Your task to perform on an android device: allow cookies in the chrome app Image 0: 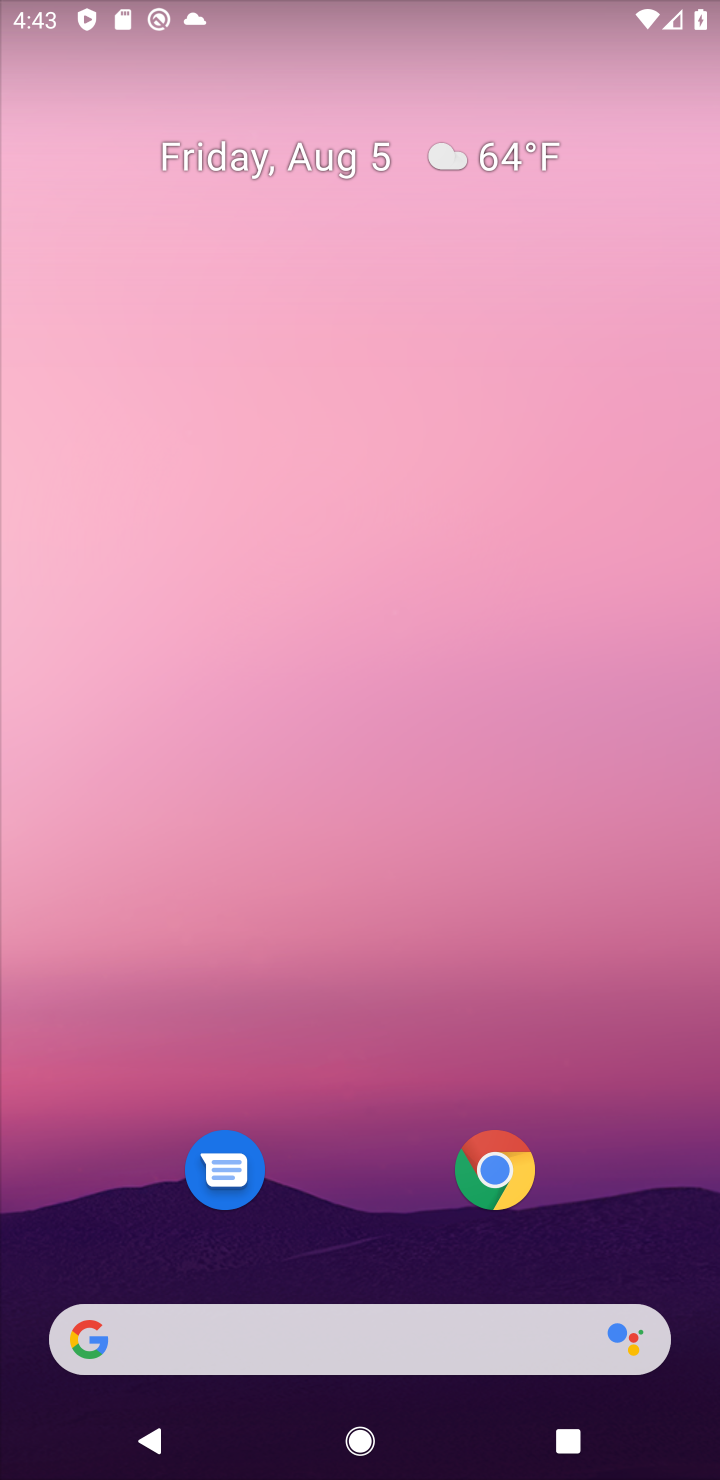
Step 0: drag from (429, 770) to (483, 329)
Your task to perform on an android device: allow cookies in the chrome app Image 1: 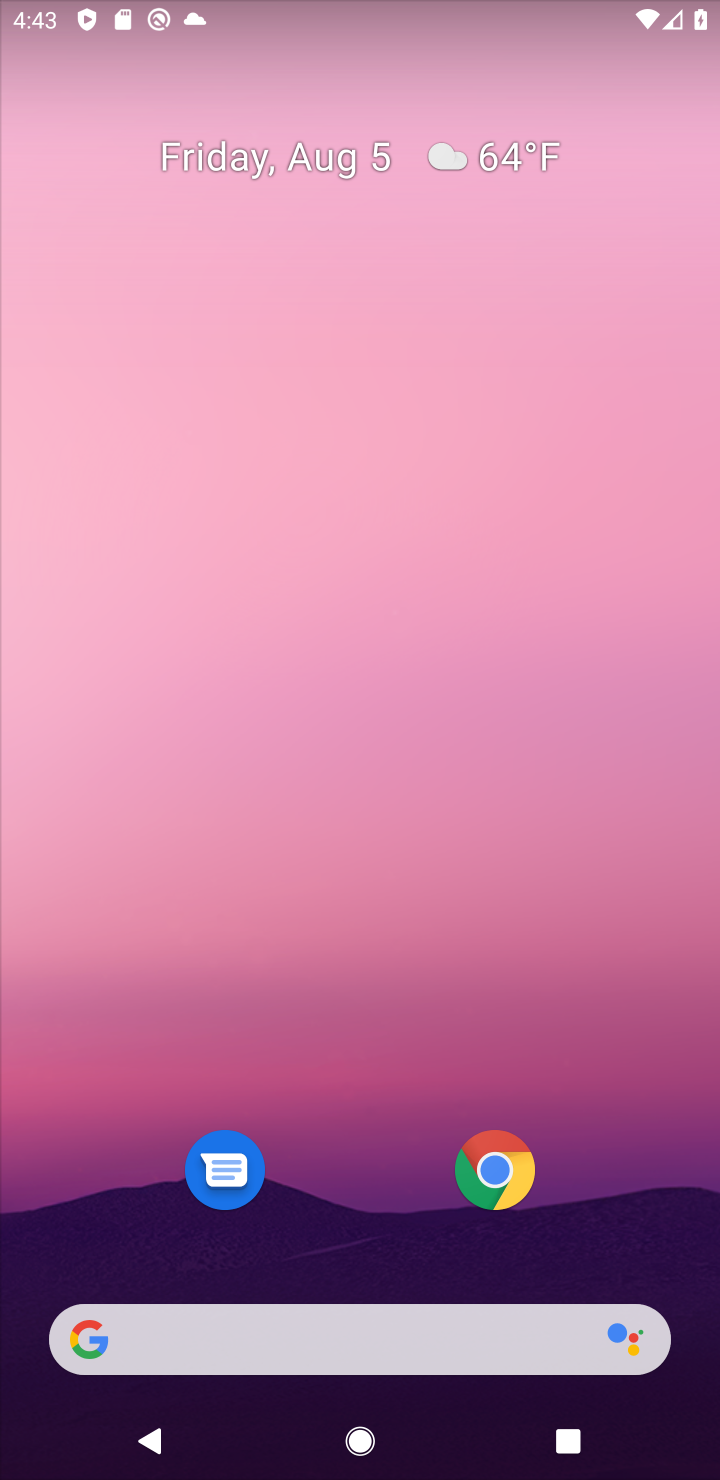
Step 1: drag from (433, 1268) to (439, 331)
Your task to perform on an android device: allow cookies in the chrome app Image 2: 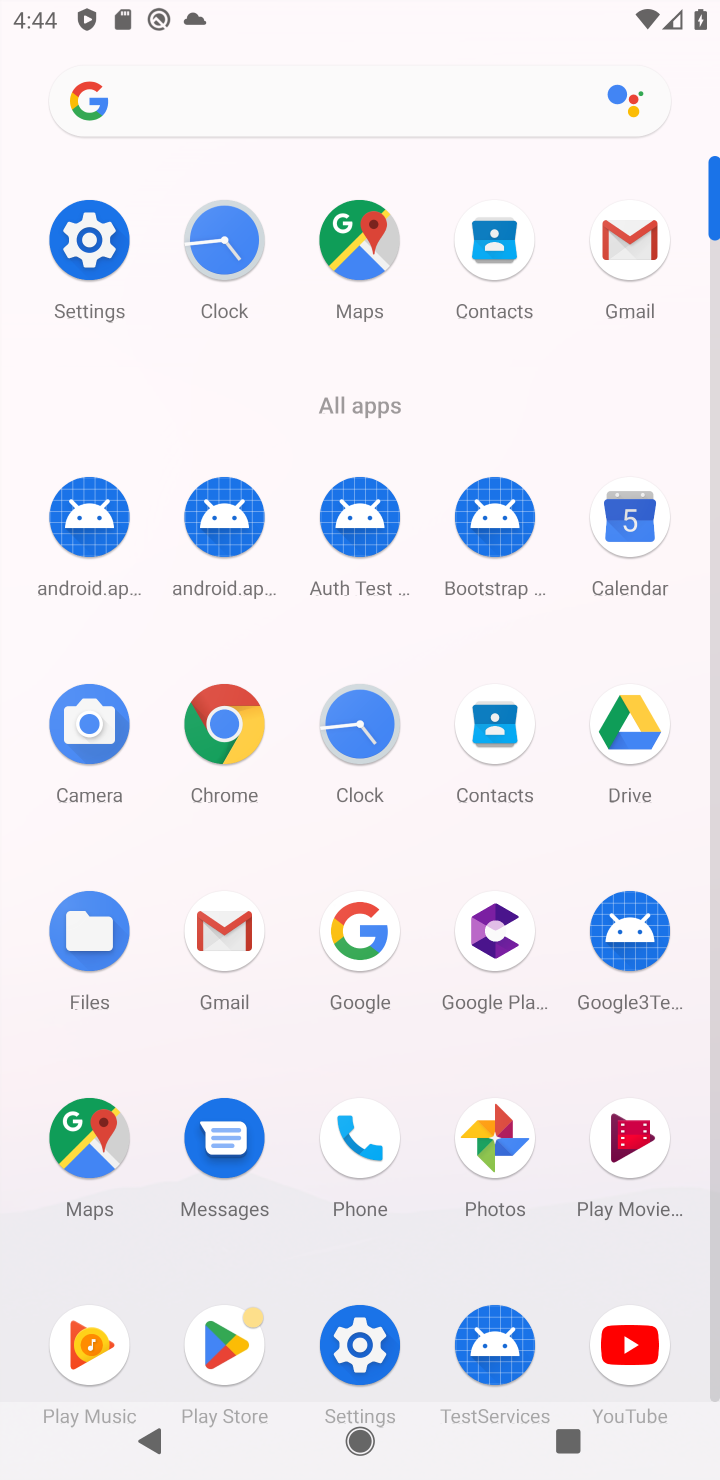
Step 2: click (207, 734)
Your task to perform on an android device: allow cookies in the chrome app Image 3: 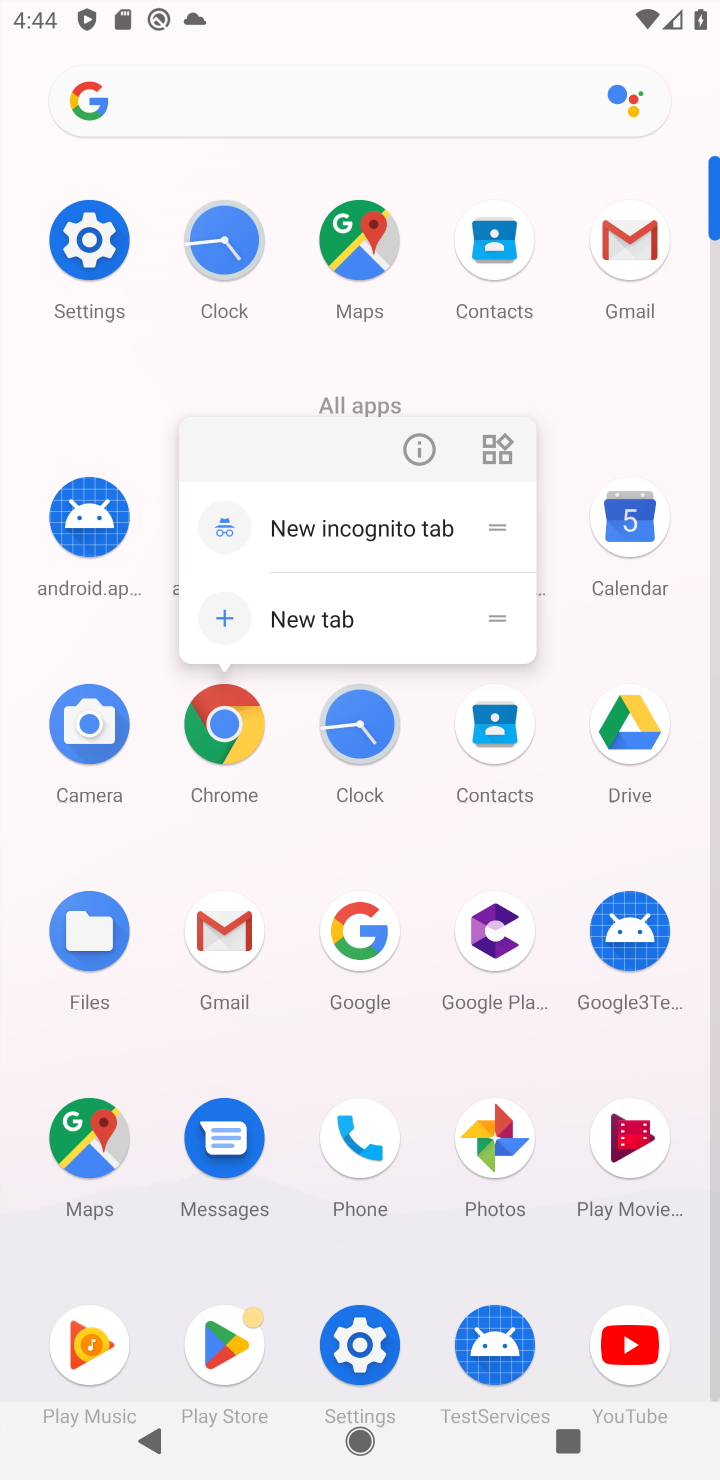
Step 3: click (207, 734)
Your task to perform on an android device: allow cookies in the chrome app Image 4: 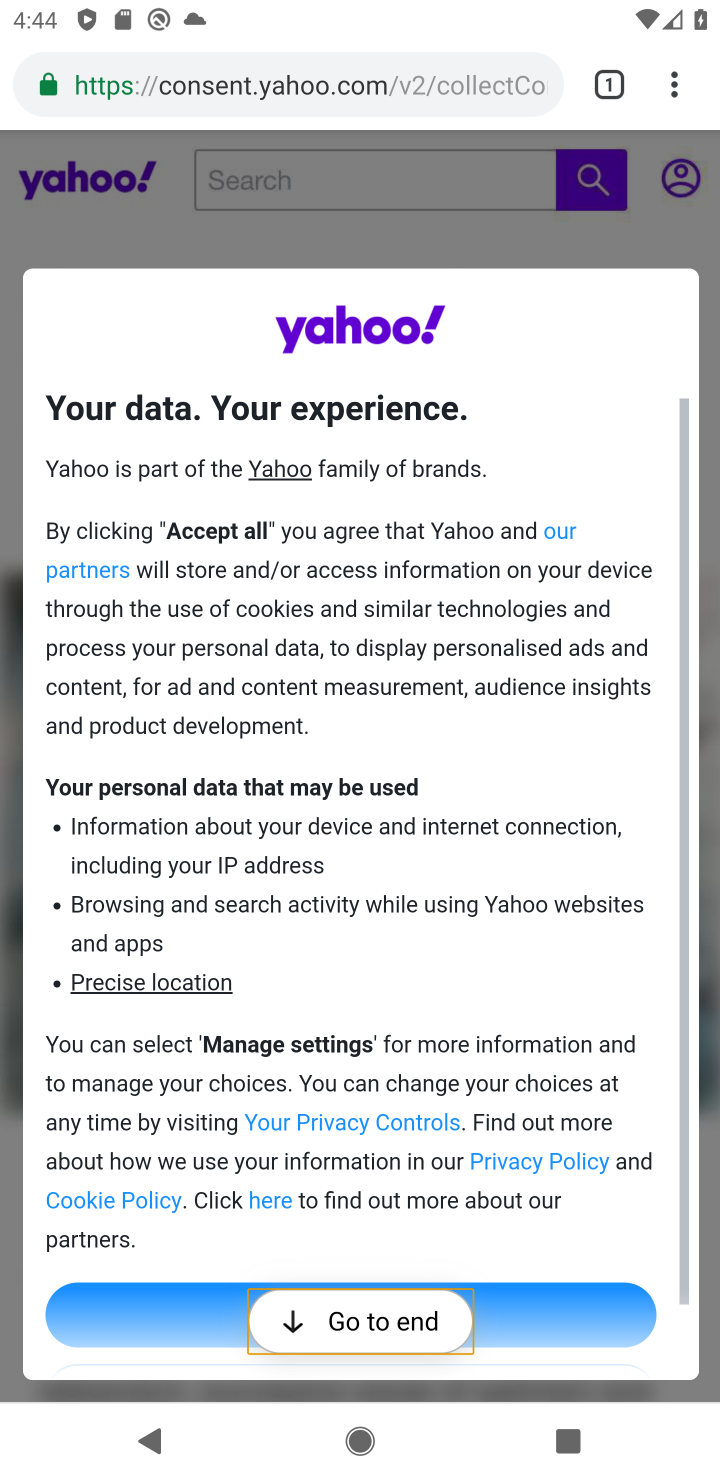
Step 4: drag from (665, 86) to (406, 1013)
Your task to perform on an android device: allow cookies in the chrome app Image 5: 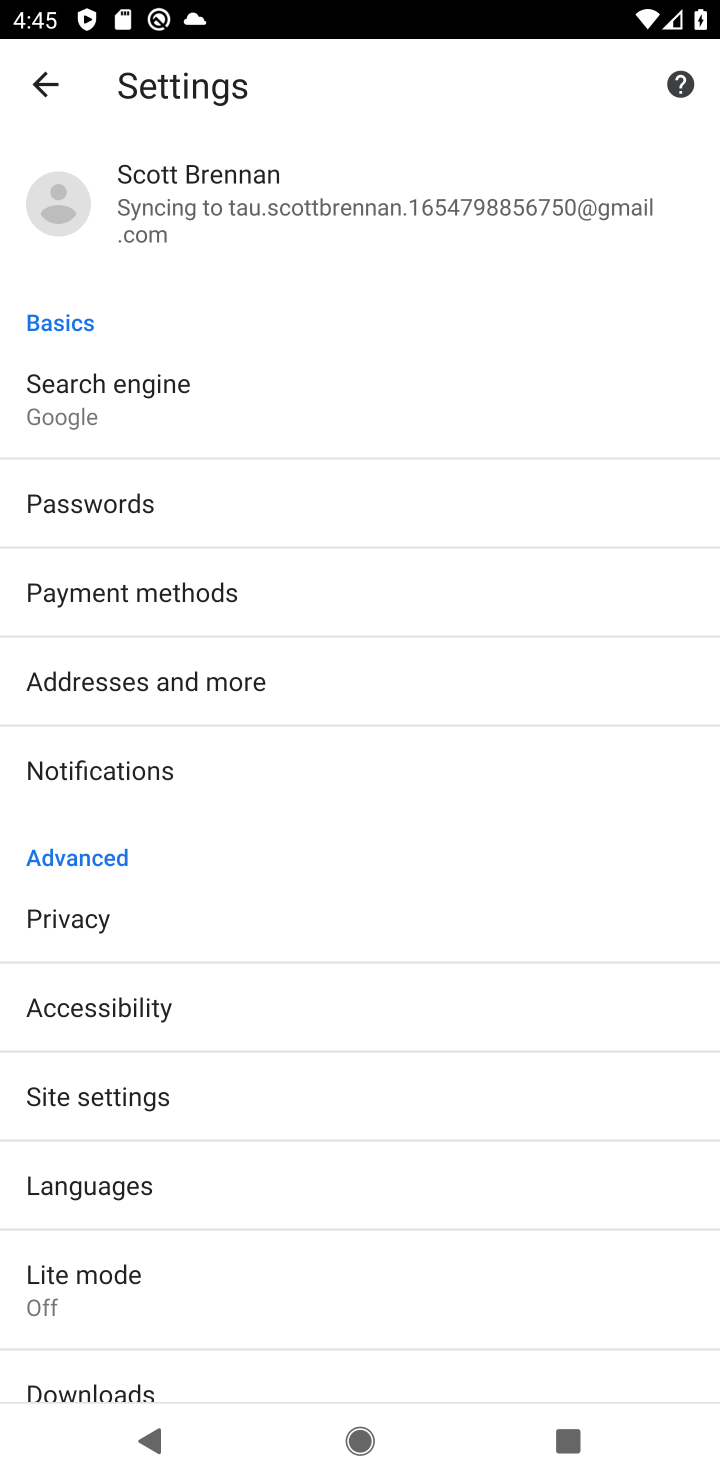
Step 5: click (119, 1091)
Your task to perform on an android device: allow cookies in the chrome app Image 6: 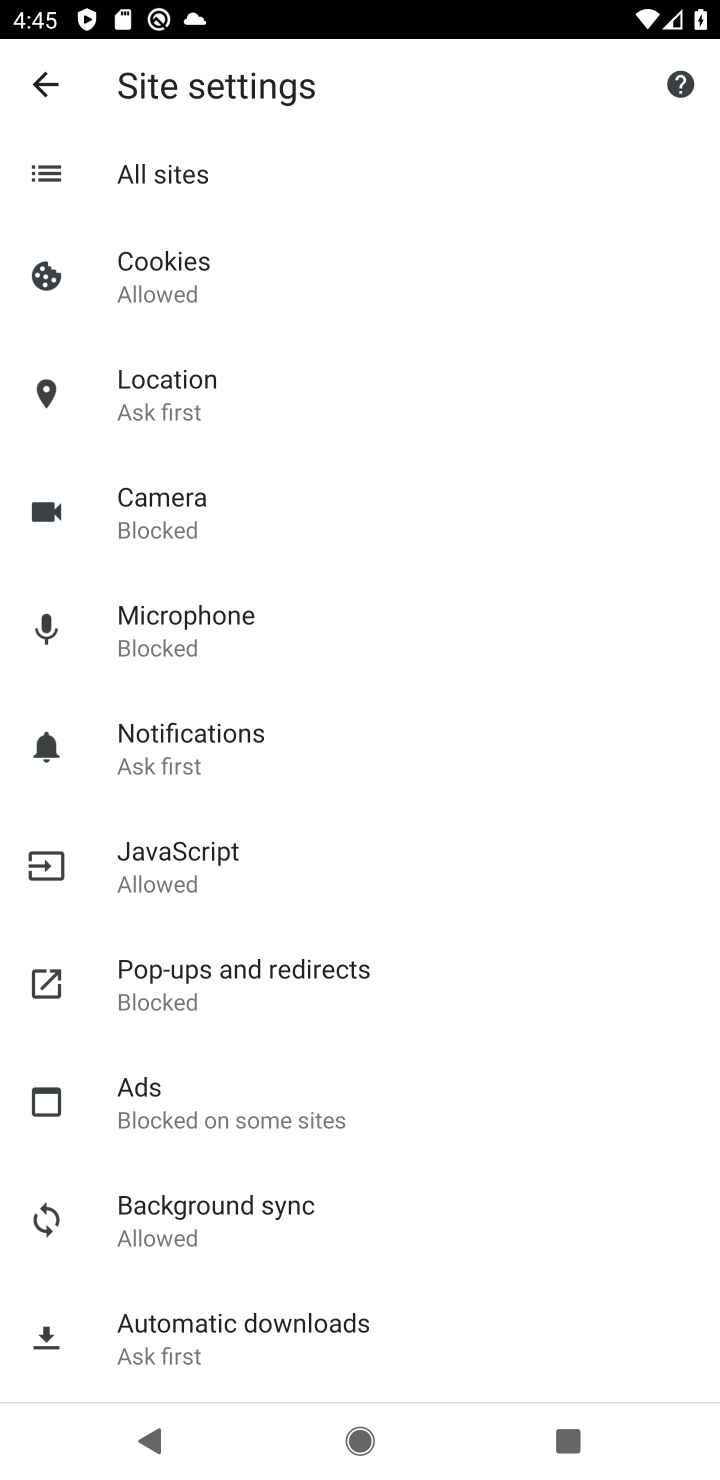
Step 6: click (153, 280)
Your task to perform on an android device: allow cookies in the chrome app Image 7: 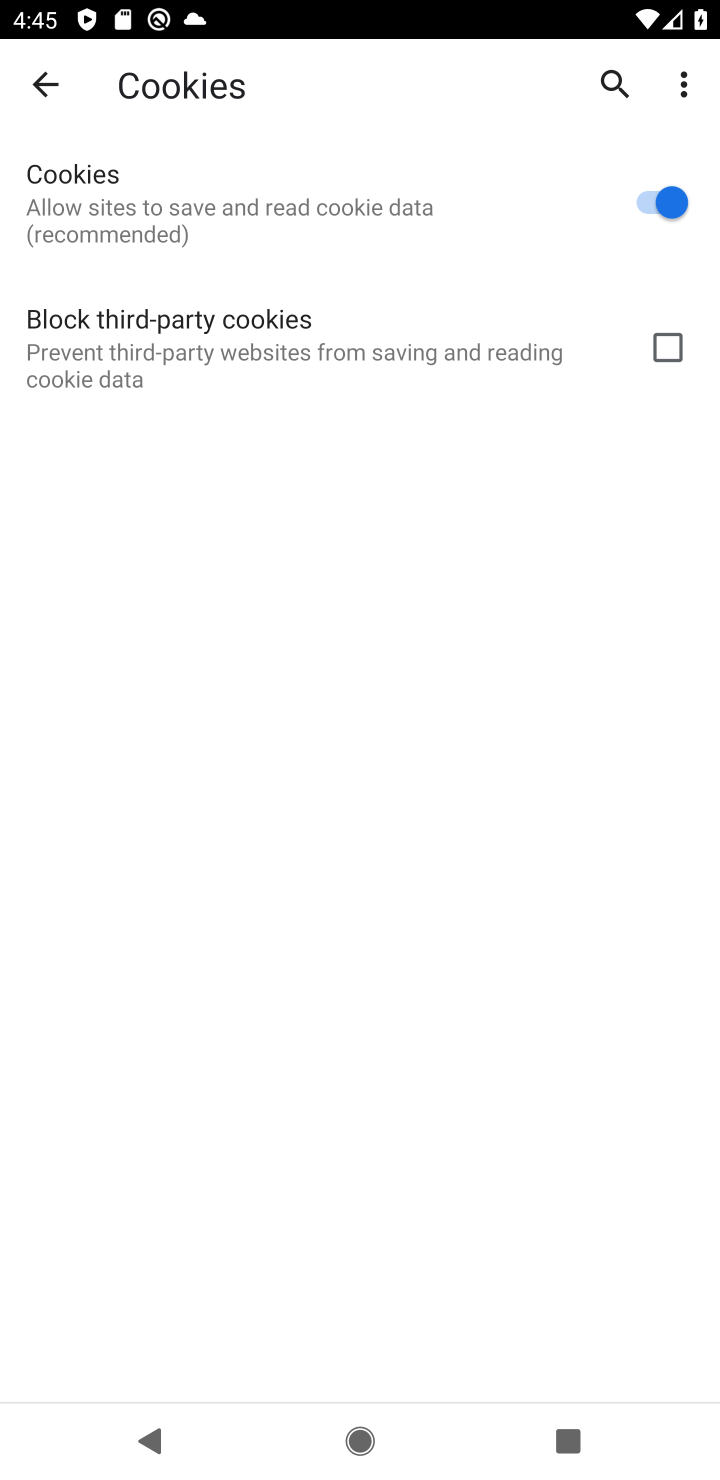
Step 7: task complete